Your task to perform on an android device: stop showing notifications on the lock screen Image 0: 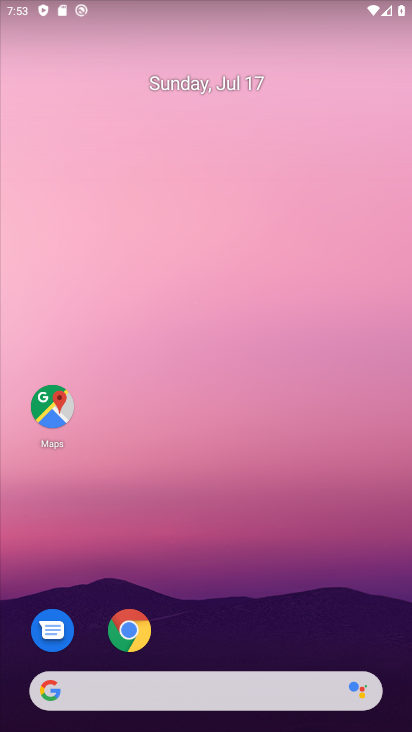
Step 0: drag from (239, 624) to (193, 104)
Your task to perform on an android device: stop showing notifications on the lock screen Image 1: 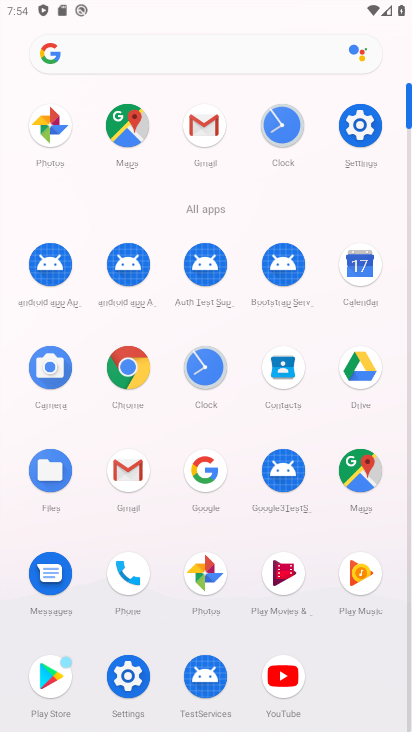
Step 1: click (379, 129)
Your task to perform on an android device: stop showing notifications on the lock screen Image 2: 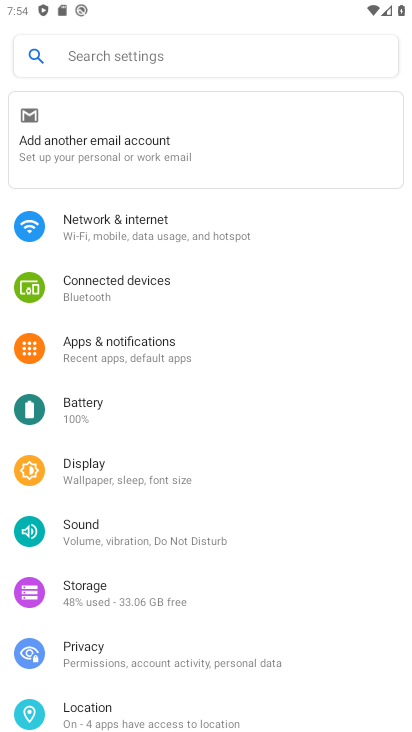
Step 2: click (119, 362)
Your task to perform on an android device: stop showing notifications on the lock screen Image 3: 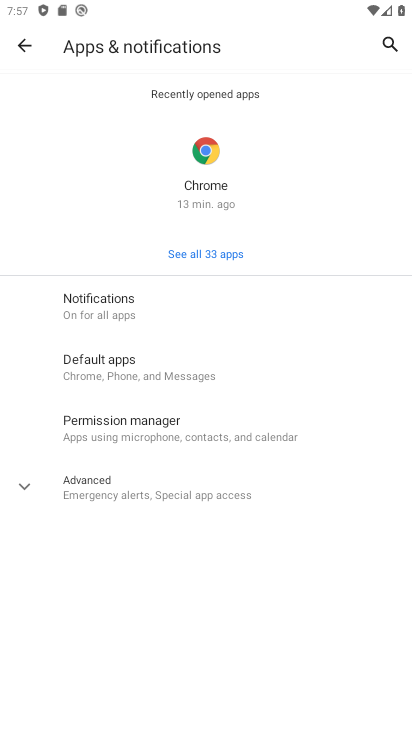
Step 3: press home button
Your task to perform on an android device: stop showing notifications on the lock screen Image 4: 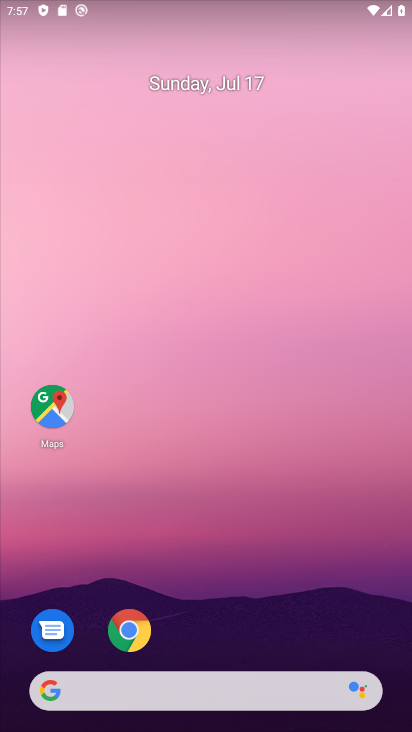
Step 4: drag from (247, 643) to (302, 178)
Your task to perform on an android device: stop showing notifications on the lock screen Image 5: 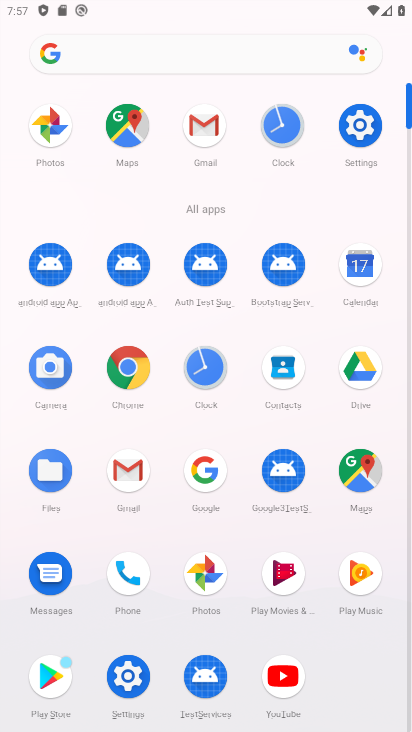
Step 5: click (372, 134)
Your task to perform on an android device: stop showing notifications on the lock screen Image 6: 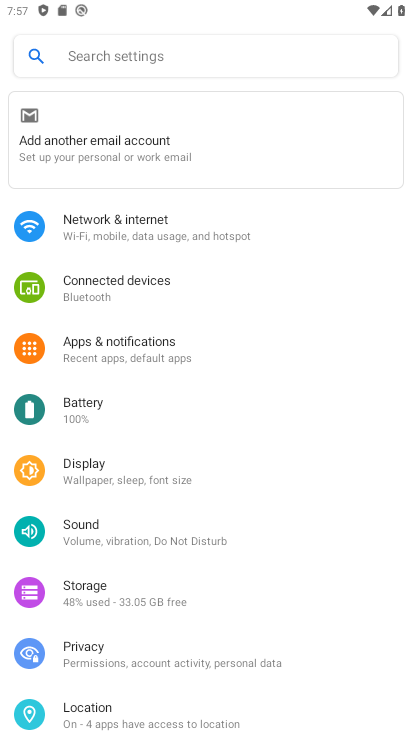
Step 6: drag from (160, 708) to (130, 574)
Your task to perform on an android device: stop showing notifications on the lock screen Image 7: 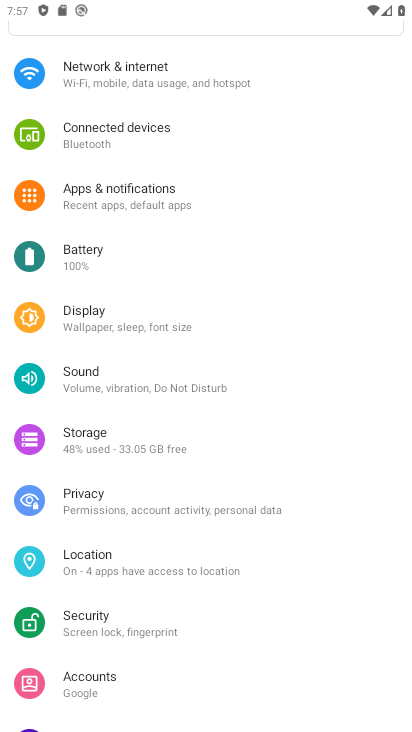
Step 7: click (163, 205)
Your task to perform on an android device: stop showing notifications on the lock screen Image 8: 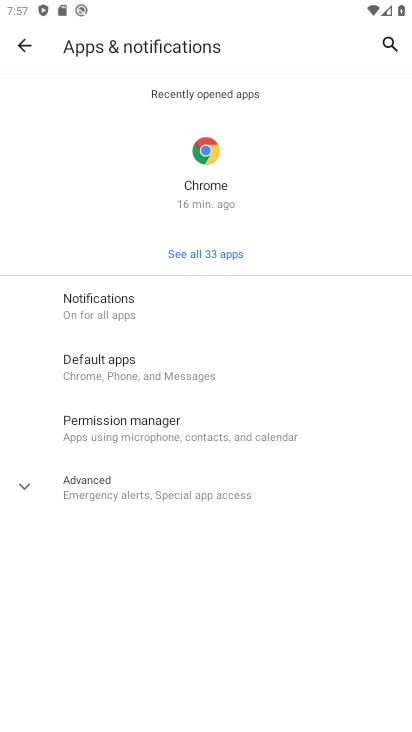
Step 8: click (107, 499)
Your task to perform on an android device: stop showing notifications on the lock screen Image 9: 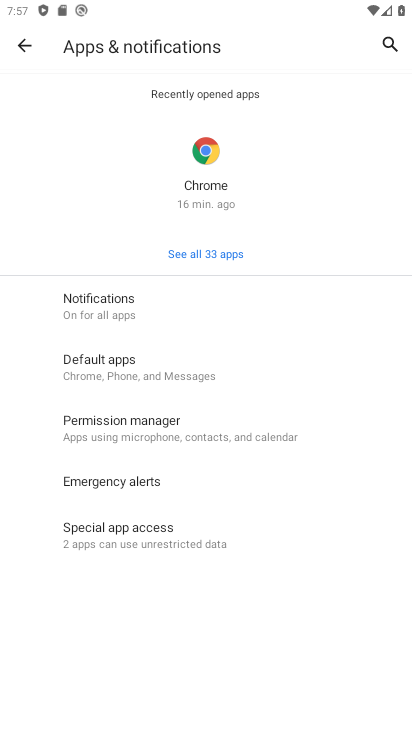
Step 9: click (214, 308)
Your task to perform on an android device: stop showing notifications on the lock screen Image 10: 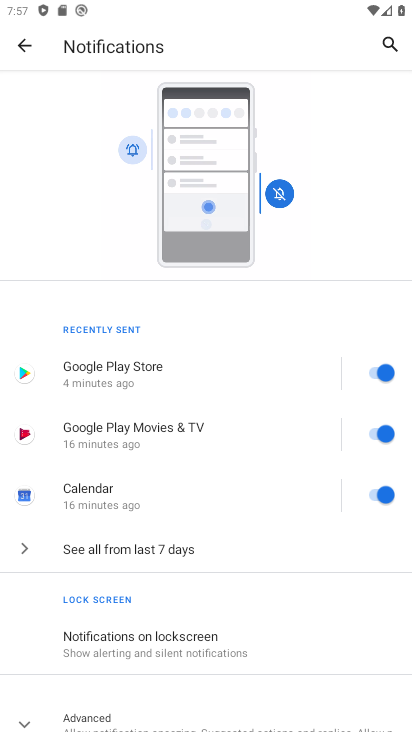
Step 10: click (155, 633)
Your task to perform on an android device: stop showing notifications on the lock screen Image 11: 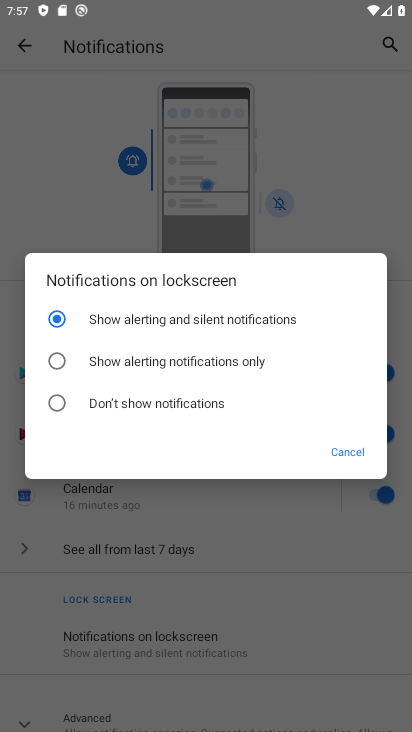
Step 11: click (173, 400)
Your task to perform on an android device: stop showing notifications on the lock screen Image 12: 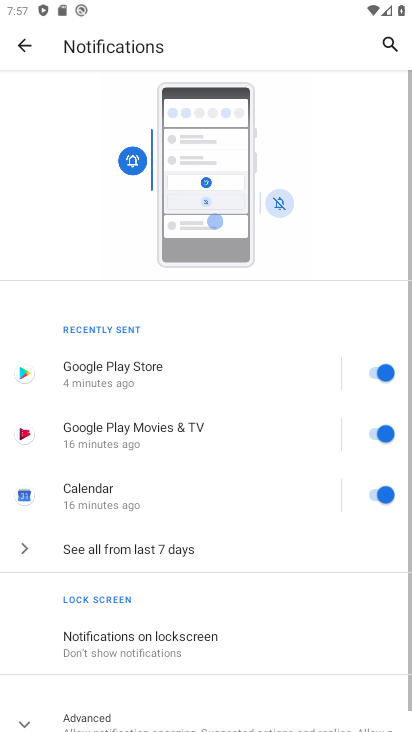
Step 12: task complete